Your task to perform on an android device: change notifications settings Image 0: 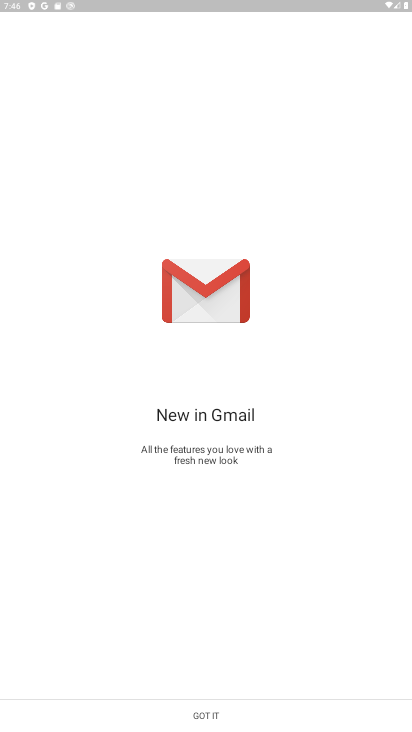
Step 0: press home button
Your task to perform on an android device: change notifications settings Image 1: 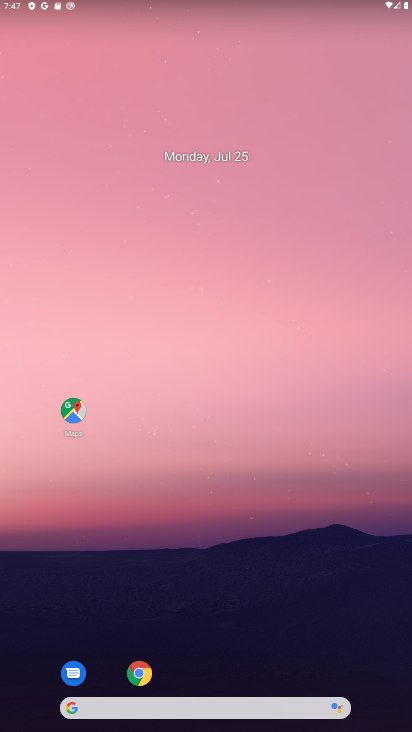
Step 1: drag from (238, 681) to (250, 418)
Your task to perform on an android device: change notifications settings Image 2: 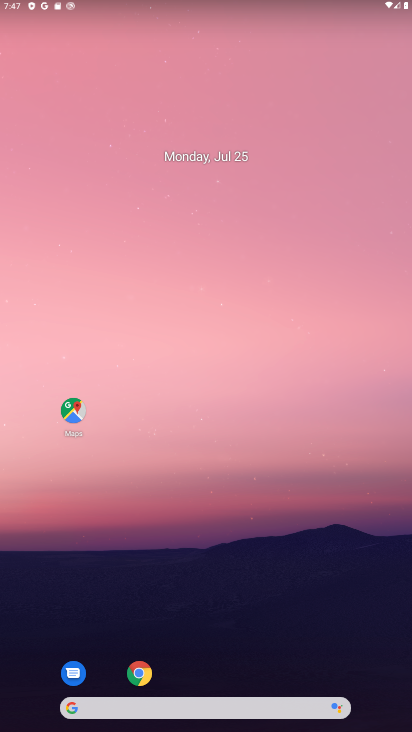
Step 2: drag from (264, 665) to (249, 83)
Your task to perform on an android device: change notifications settings Image 3: 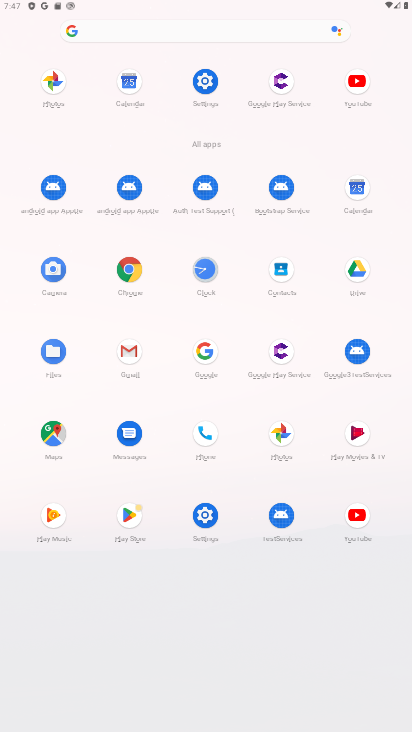
Step 3: click (216, 88)
Your task to perform on an android device: change notifications settings Image 4: 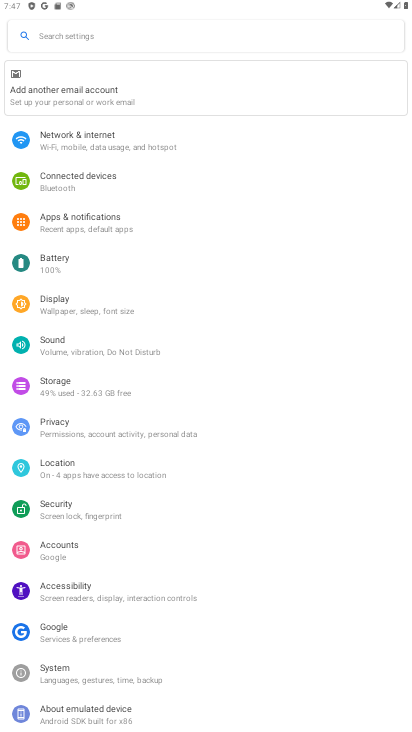
Step 4: click (69, 232)
Your task to perform on an android device: change notifications settings Image 5: 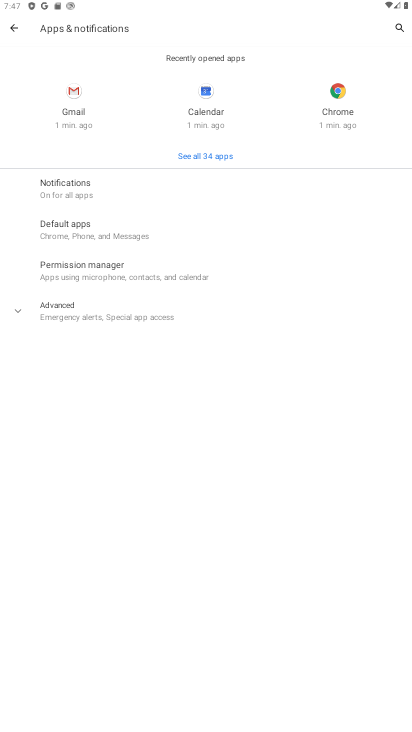
Step 5: task complete